Your task to perform on an android device: Open settings on Google Maps Image 0: 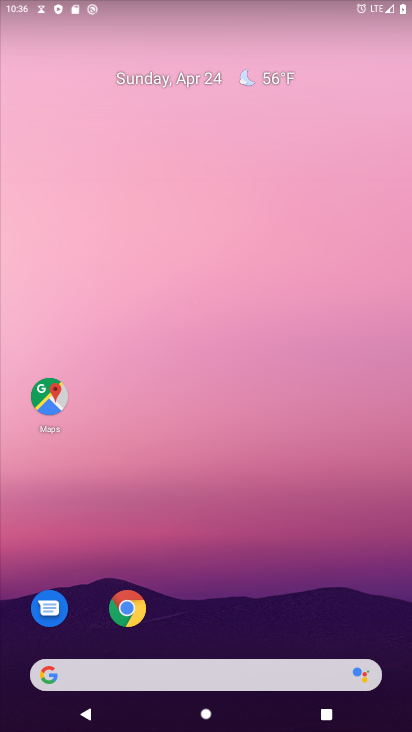
Step 0: drag from (200, 642) to (217, 10)
Your task to perform on an android device: Open settings on Google Maps Image 1: 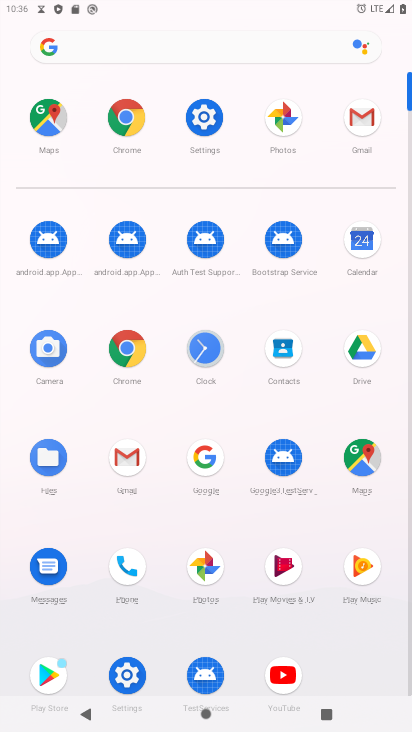
Step 1: click (362, 458)
Your task to perform on an android device: Open settings on Google Maps Image 2: 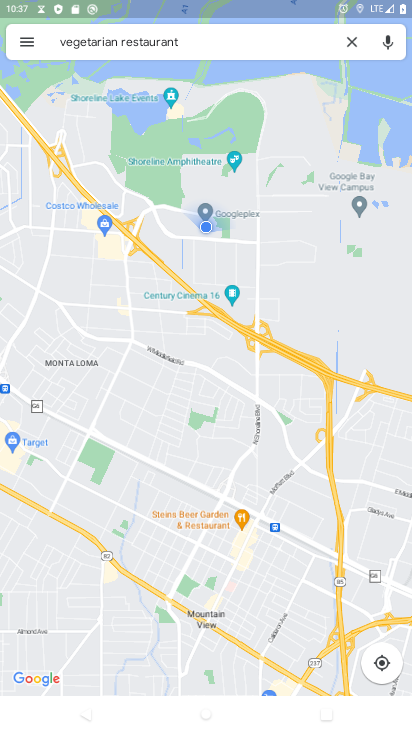
Step 2: click (24, 34)
Your task to perform on an android device: Open settings on Google Maps Image 3: 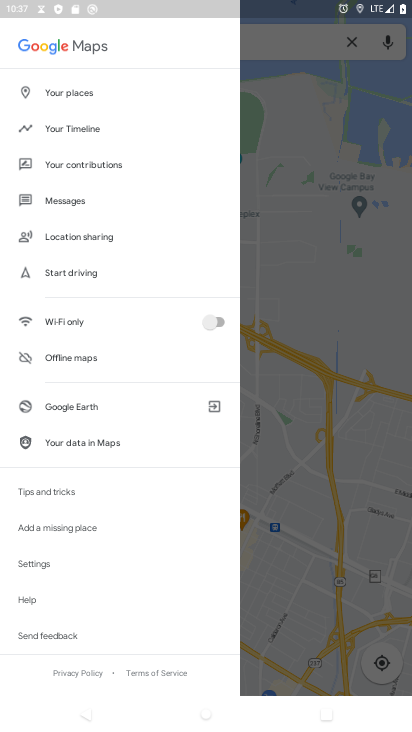
Step 3: click (38, 562)
Your task to perform on an android device: Open settings on Google Maps Image 4: 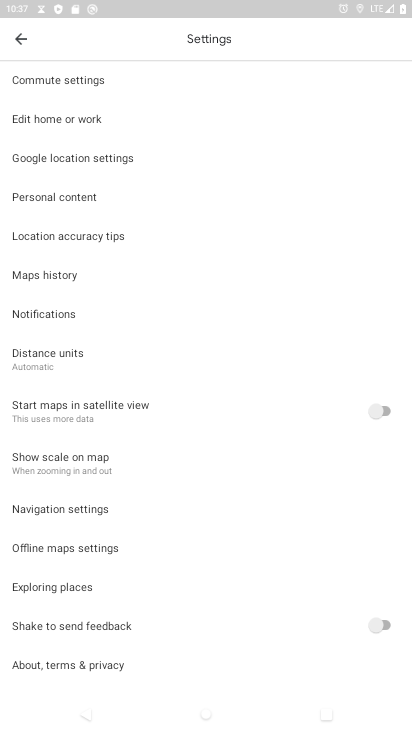
Step 4: task complete